Your task to perform on an android device: Open location settings Image 0: 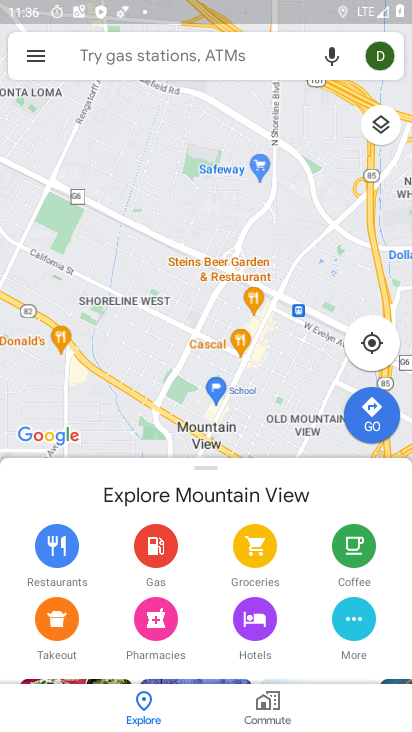
Step 0: press home button
Your task to perform on an android device: Open location settings Image 1: 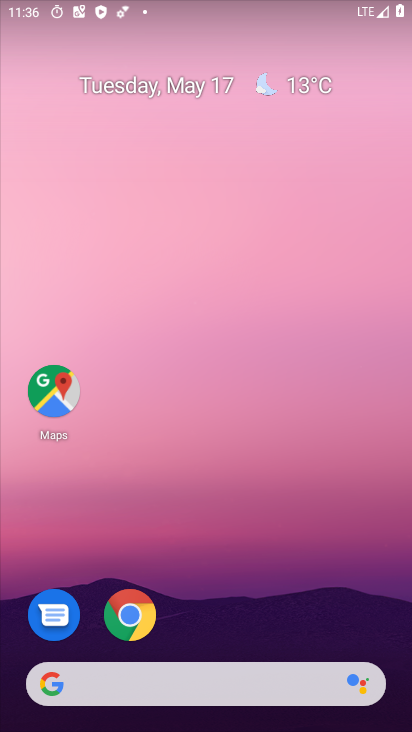
Step 1: drag from (150, 688) to (279, 190)
Your task to perform on an android device: Open location settings Image 2: 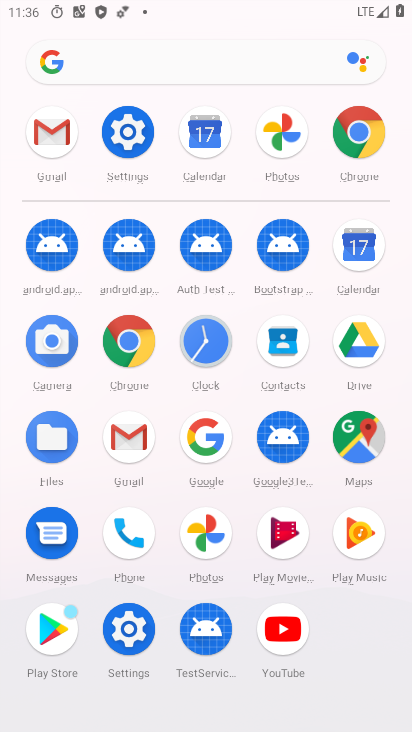
Step 2: click (139, 140)
Your task to perform on an android device: Open location settings Image 3: 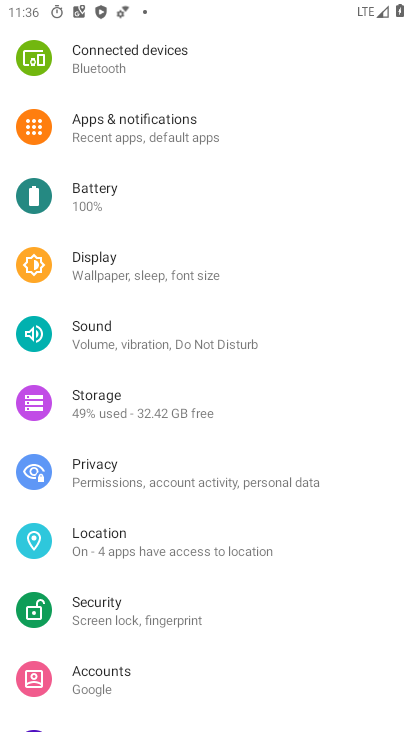
Step 3: click (129, 535)
Your task to perform on an android device: Open location settings Image 4: 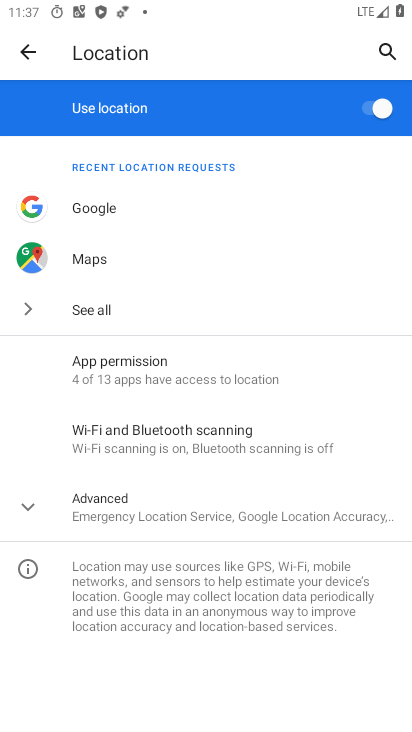
Step 4: task complete